Your task to perform on an android device: What's on my calendar today? Image 0: 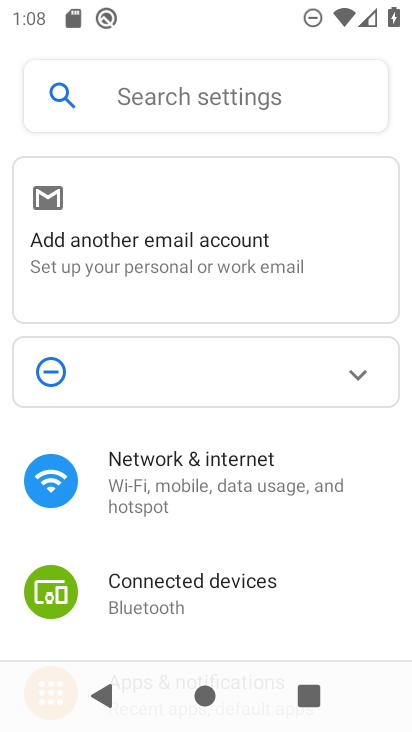
Step 0: press home button
Your task to perform on an android device: What's on my calendar today? Image 1: 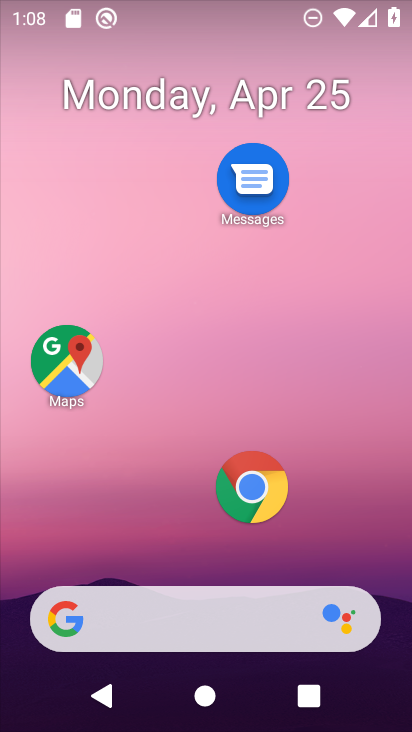
Step 1: drag from (307, 551) to (269, 89)
Your task to perform on an android device: What's on my calendar today? Image 2: 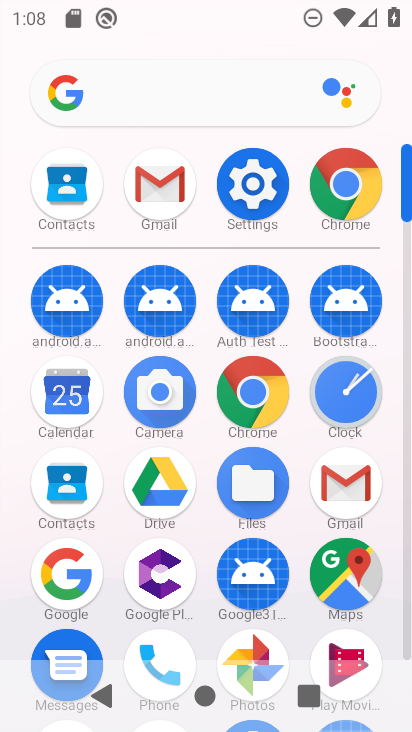
Step 2: click (52, 373)
Your task to perform on an android device: What's on my calendar today? Image 3: 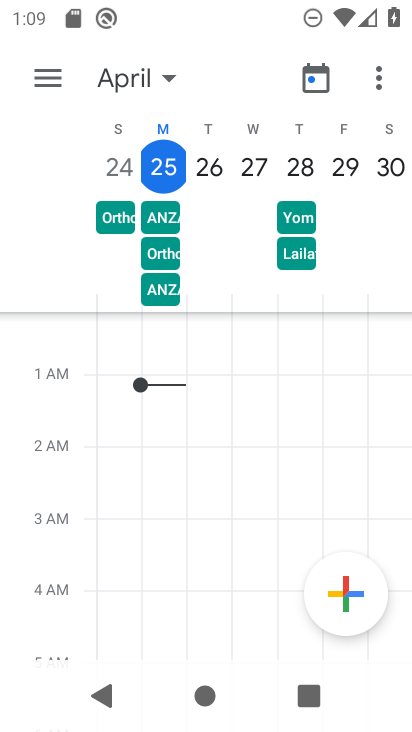
Step 3: task complete